Your task to perform on an android device: check the backup settings in the google photos Image 0: 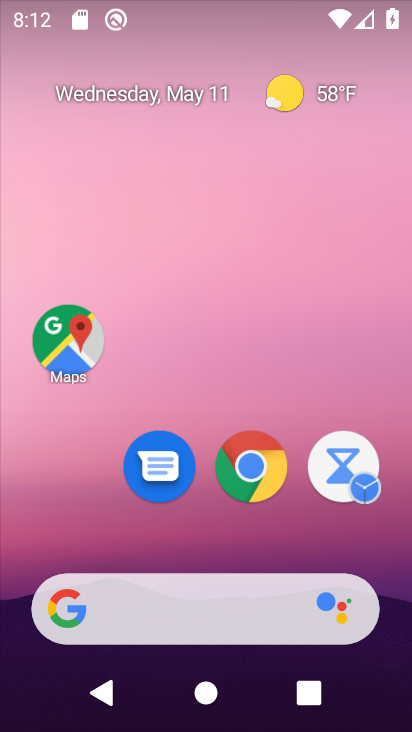
Step 0: drag from (200, 539) to (233, 67)
Your task to perform on an android device: check the backup settings in the google photos Image 1: 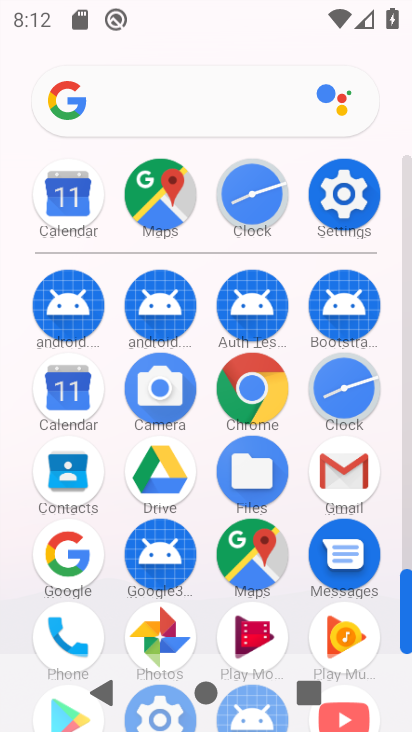
Step 1: click (151, 636)
Your task to perform on an android device: check the backup settings in the google photos Image 2: 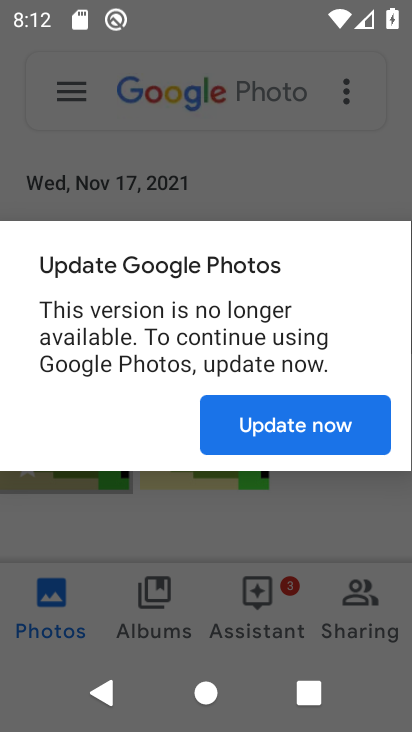
Step 2: click (302, 426)
Your task to perform on an android device: check the backup settings in the google photos Image 3: 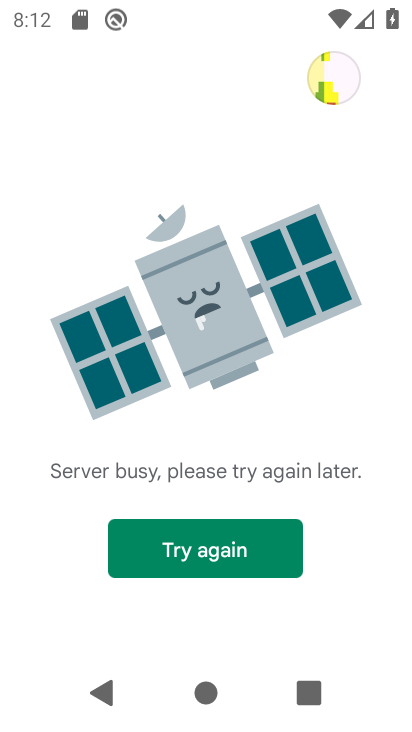
Step 3: click (157, 556)
Your task to perform on an android device: check the backup settings in the google photos Image 4: 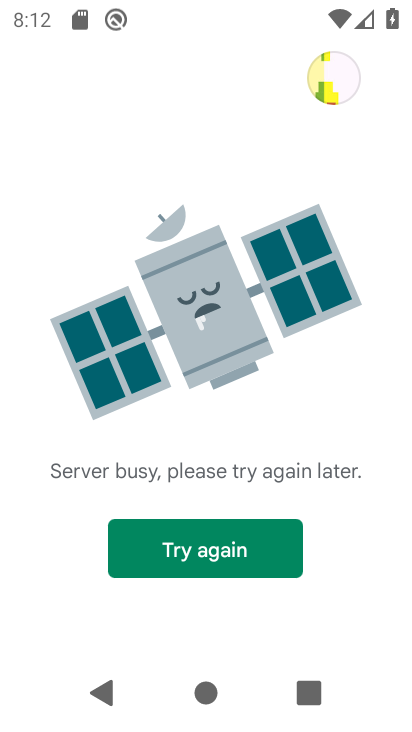
Step 4: click (157, 556)
Your task to perform on an android device: check the backup settings in the google photos Image 5: 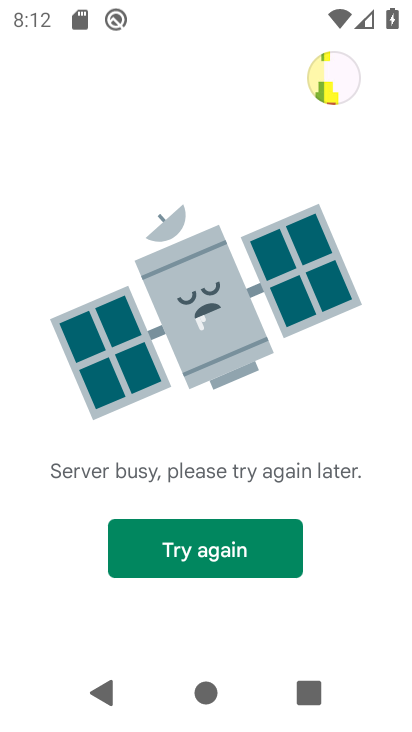
Step 5: task complete